Your task to perform on an android device: Turn on the flashlight Image 0: 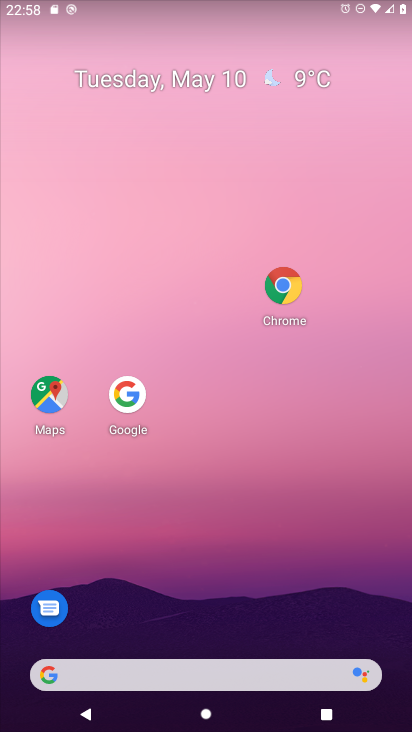
Step 0: press home button
Your task to perform on an android device: Turn on the flashlight Image 1: 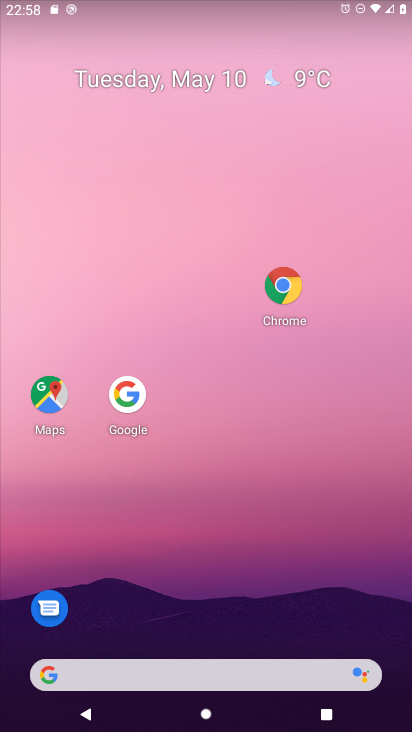
Step 1: task complete